Your task to perform on an android device: turn off improve location accuracy Image 0: 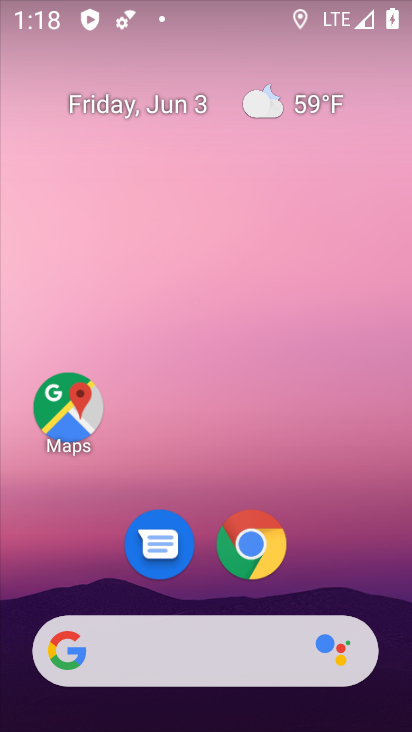
Step 0: drag from (201, 590) to (5, 41)
Your task to perform on an android device: turn off improve location accuracy Image 1: 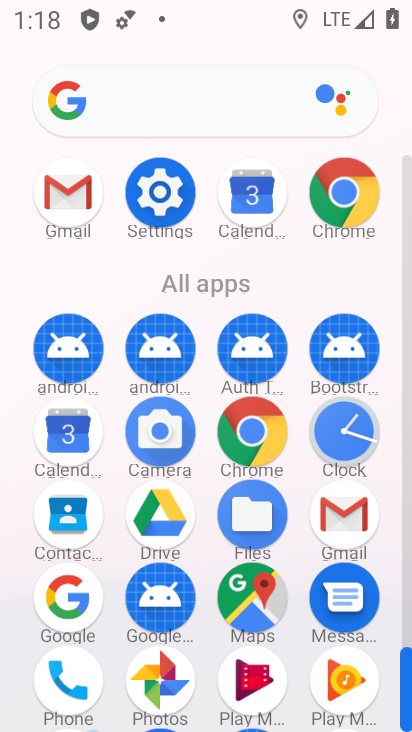
Step 1: click (169, 197)
Your task to perform on an android device: turn off improve location accuracy Image 2: 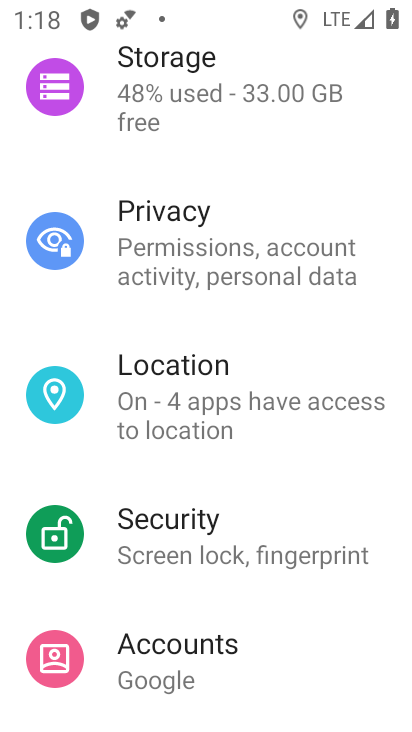
Step 2: click (210, 370)
Your task to perform on an android device: turn off improve location accuracy Image 3: 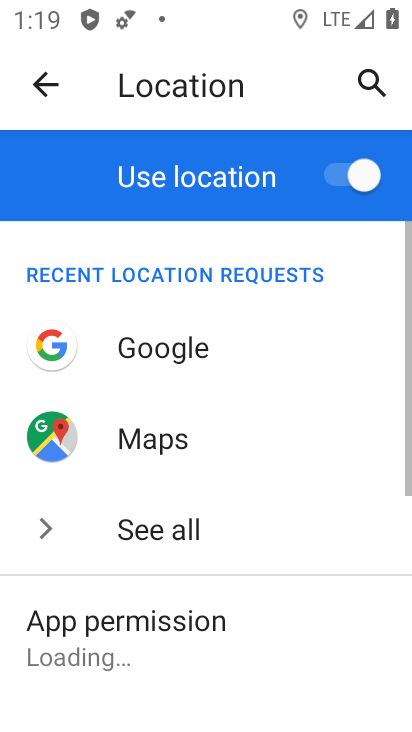
Step 3: drag from (236, 631) to (220, 12)
Your task to perform on an android device: turn off improve location accuracy Image 4: 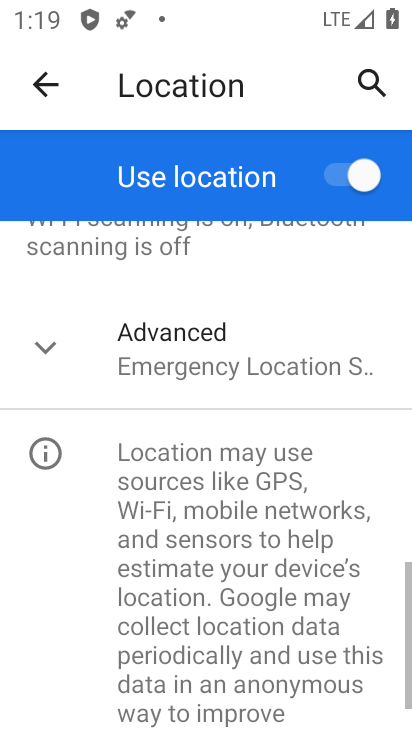
Step 4: click (194, 355)
Your task to perform on an android device: turn off improve location accuracy Image 5: 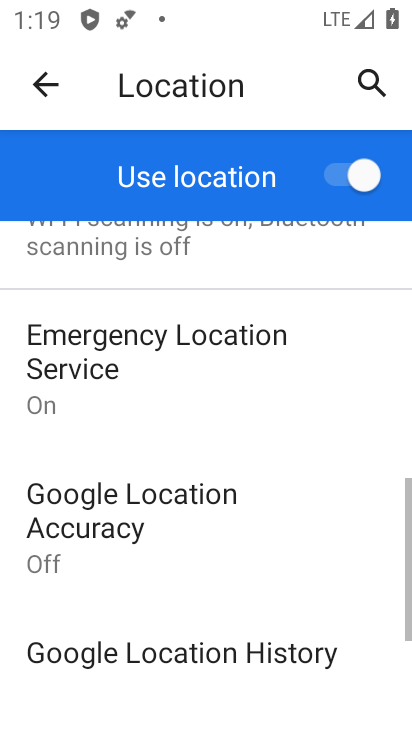
Step 5: click (104, 553)
Your task to perform on an android device: turn off improve location accuracy Image 6: 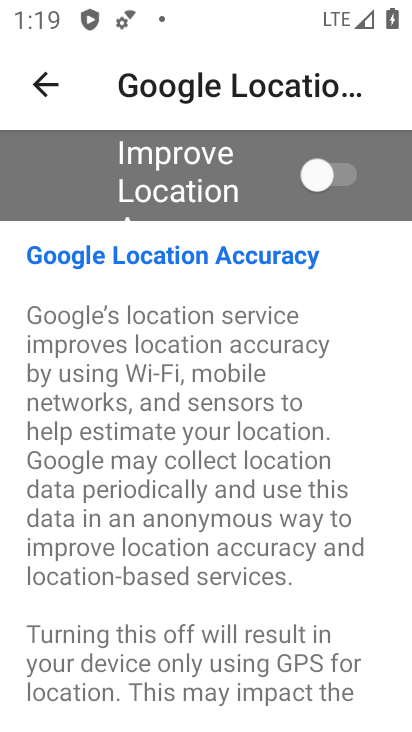
Step 6: task complete